Your task to perform on an android device: toggle data saver in the chrome app Image 0: 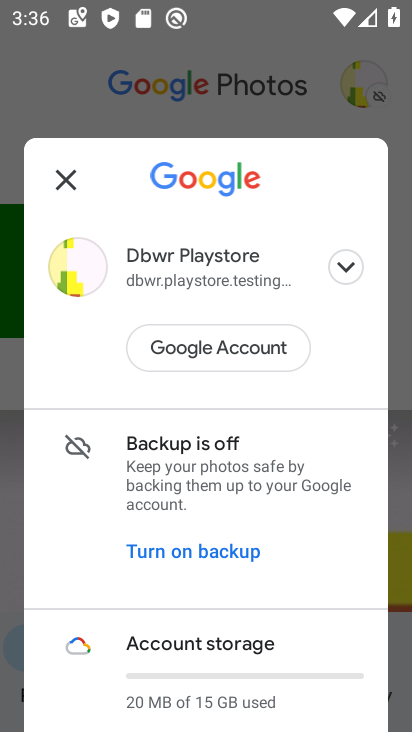
Step 0: press home button
Your task to perform on an android device: toggle data saver in the chrome app Image 1: 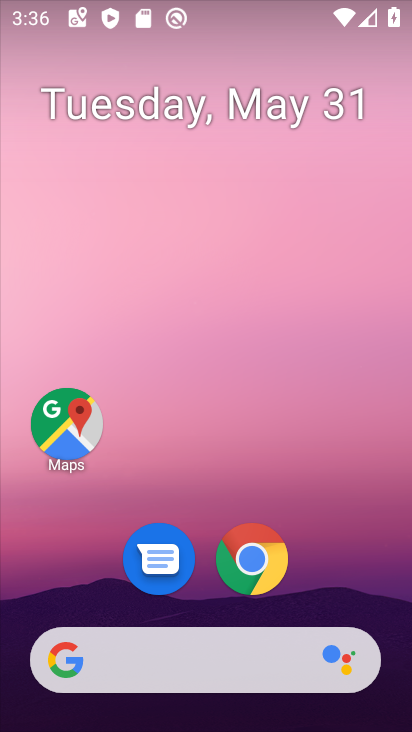
Step 1: click (255, 562)
Your task to perform on an android device: toggle data saver in the chrome app Image 2: 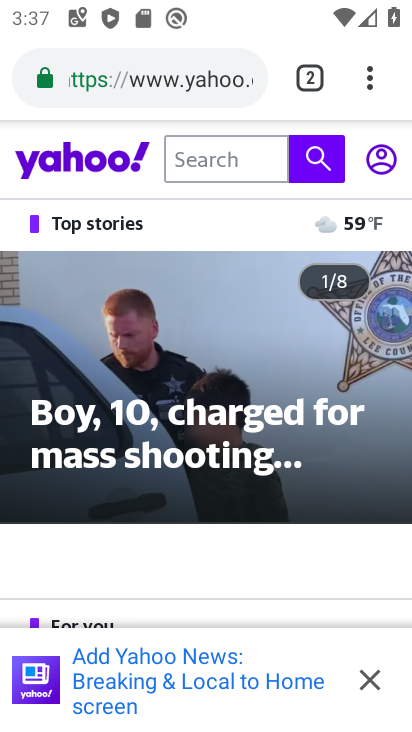
Step 2: click (370, 86)
Your task to perform on an android device: toggle data saver in the chrome app Image 3: 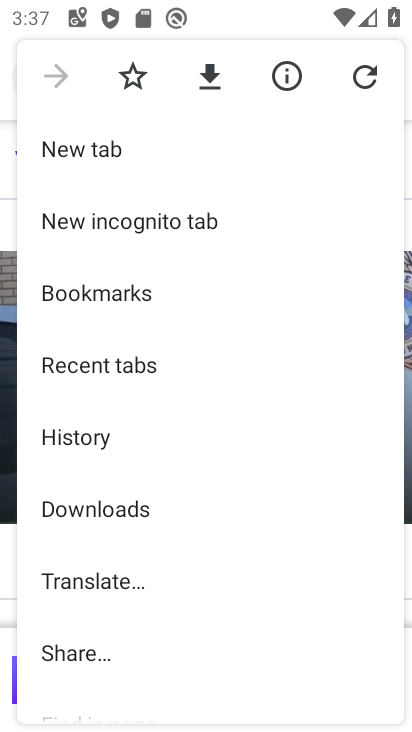
Step 3: drag from (106, 660) to (105, 567)
Your task to perform on an android device: toggle data saver in the chrome app Image 4: 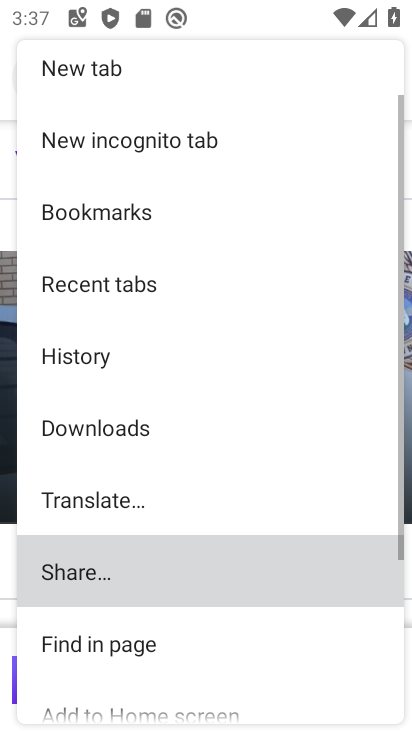
Step 4: click (103, 432)
Your task to perform on an android device: toggle data saver in the chrome app Image 5: 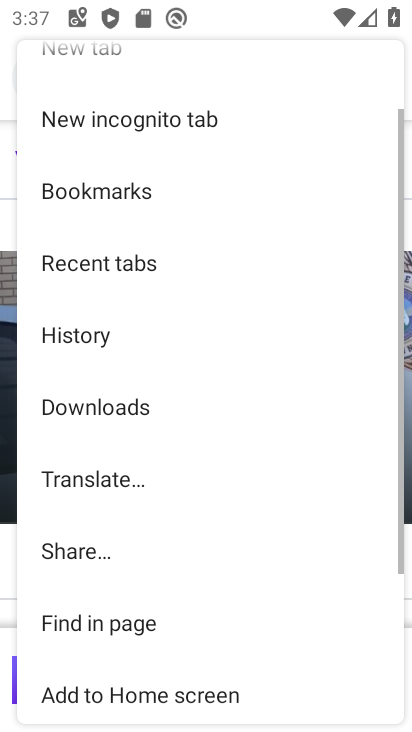
Step 5: drag from (102, 322) to (103, 275)
Your task to perform on an android device: toggle data saver in the chrome app Image 6: 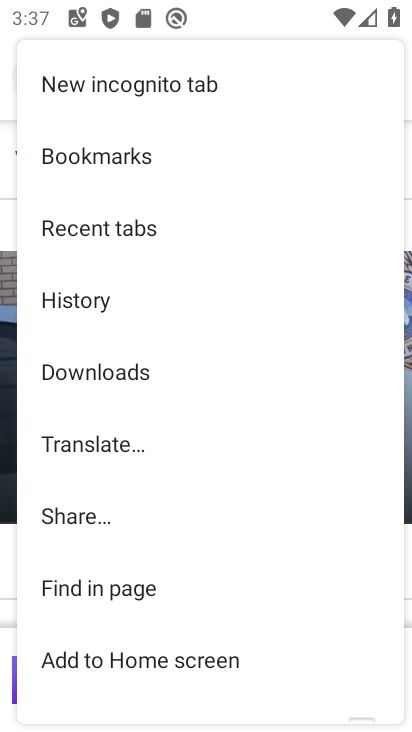
Step 6: drag from (130, 674) to (122, 354)
Your task to perform on an android device: toggle data saver in the chrome app Image 7: 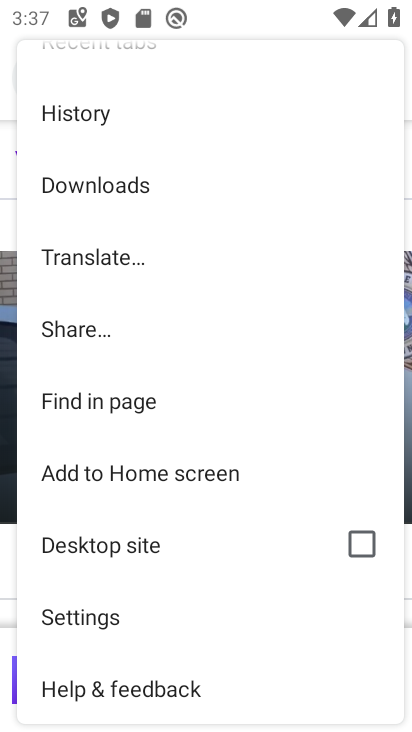
Step 7: click (91, 611)
Your task to perform on an android device: toggle data saver in the chrome app Image 8: 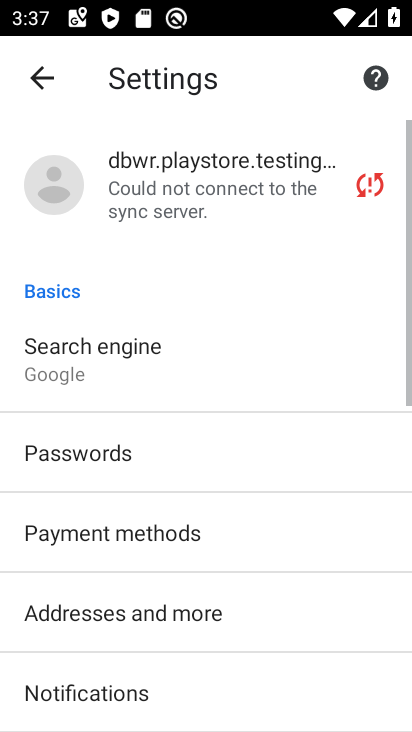
Step 8: drag from (163, 701) to (168, 499)
Your task to perform on an android device: toggle data saver in the chrome app Image 9: 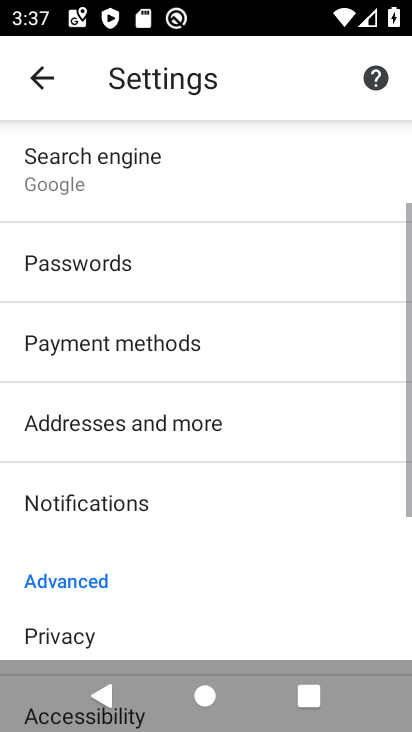
Step 9: drag from (170, 365) to (166, 257)
Your task to perform on an android device: toggle data saver in the chrome app Image 10: 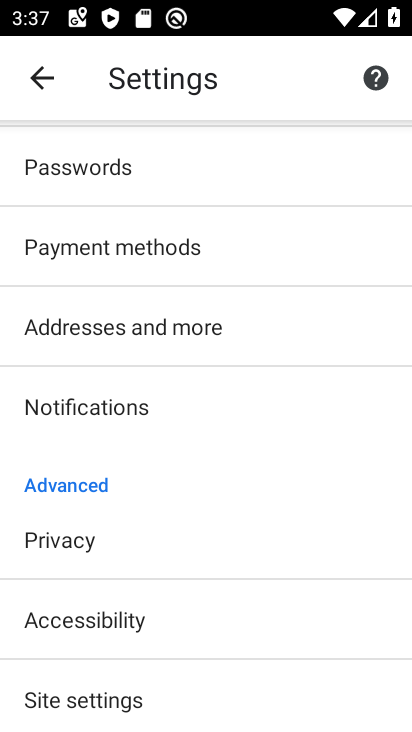
Step 10: drag from (85, 674) to (100, 305)
Your task to perform on an android device: toggle data saver in the chrome app Image 11: 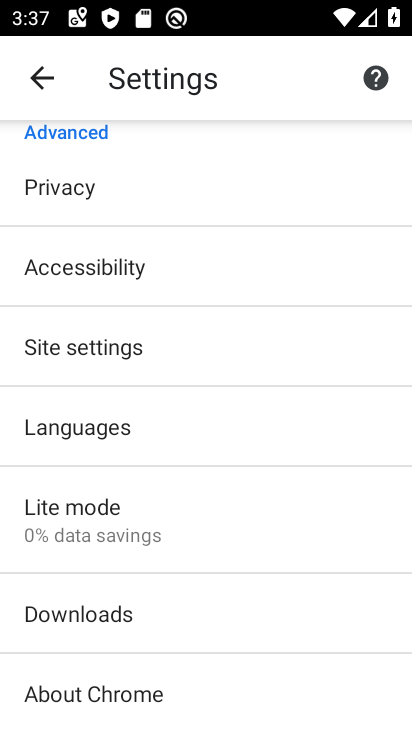
Step 11: click (90, 519)
Your task to perform on an android device: toggle data saver in the chrome app Image 12: 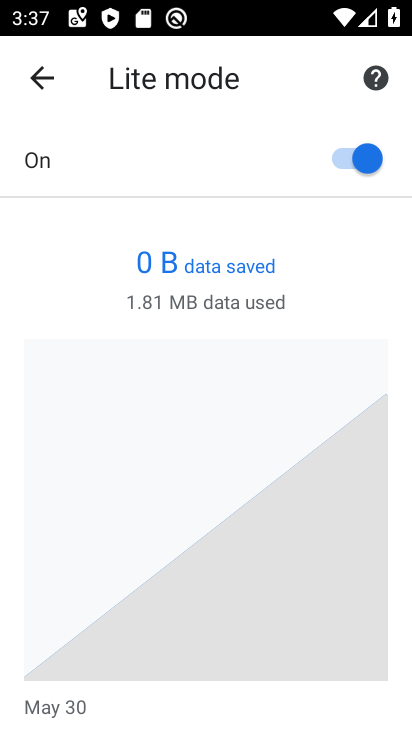
Step 12: click (346, 148)
Your task to perform on an android device: toggle data saver in the chrome app Image 13: 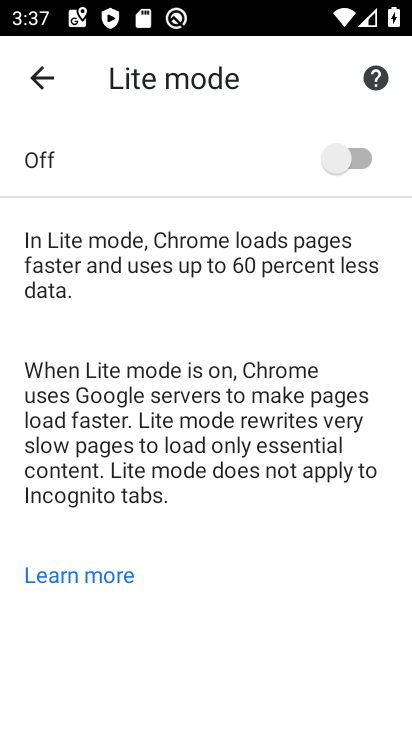
Step 13: task complete